Your task to perform on an android device: delete a single message in the gmail app Image 0: 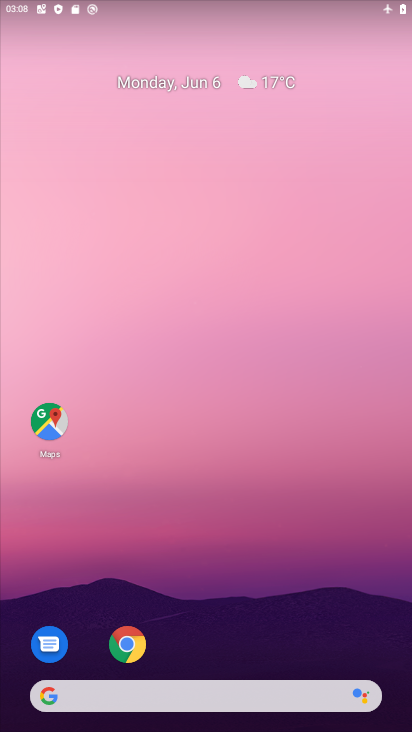
Step 0: drag from (380, 666) to (310, 165)
Your task to perform on an android device: delete a single message in the gmail app Image 1: 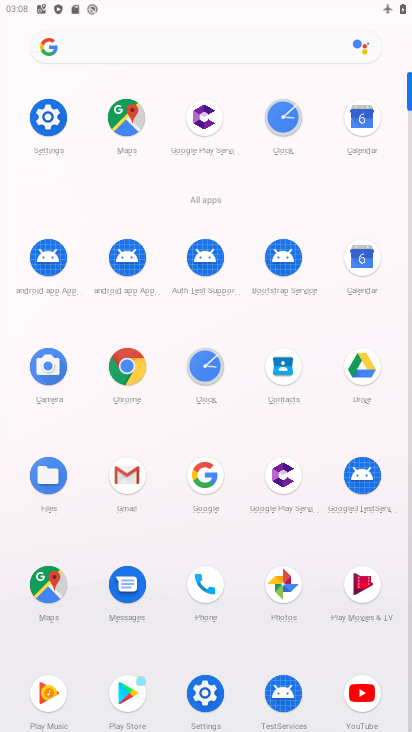
Step 1: click (131, 478)
Your task to perform on an android device: delete a single message in the gmail app Image 2: 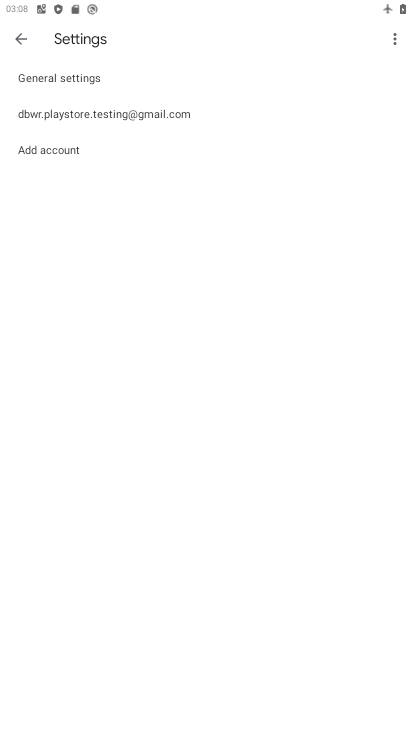
Step 2: click (20, 41)
Your task to perform on an android device: delete a single message in the gmail app Image 3: 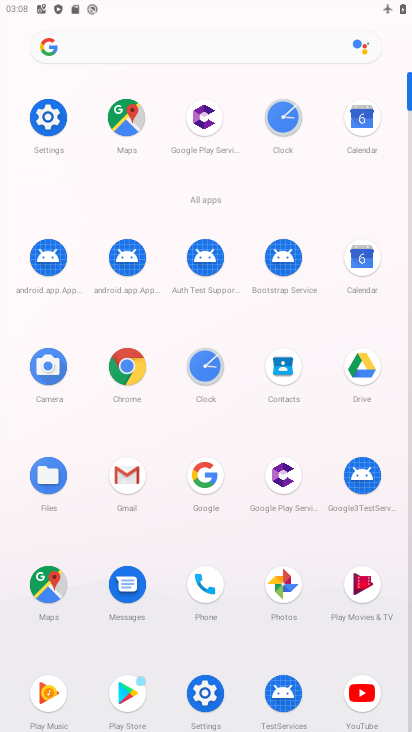
Step 3: click (115, 483)
Your task to perform on an android device: delete a single message in the gmail app Image 4: 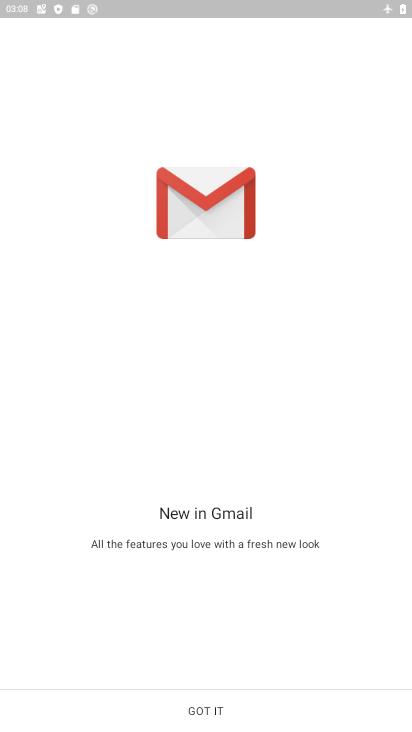
Step 4: click (197, 701)
Your task to perform on an android device: delete a single message in the gmail app Image 5: 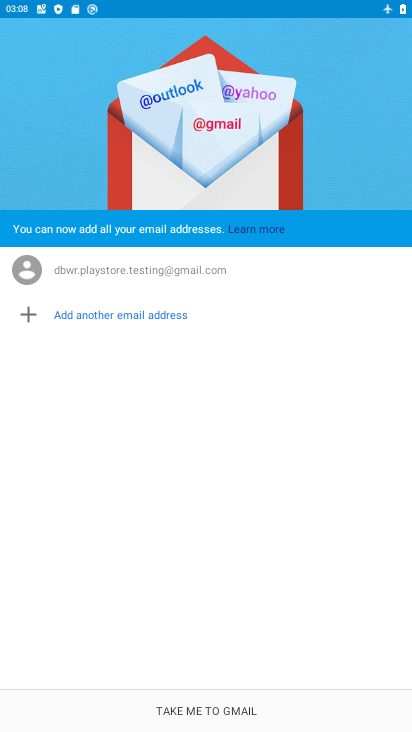
Step 5: click (197, 701)
Your task to perform on an android device: delete a single message in the gmail app Image 6: 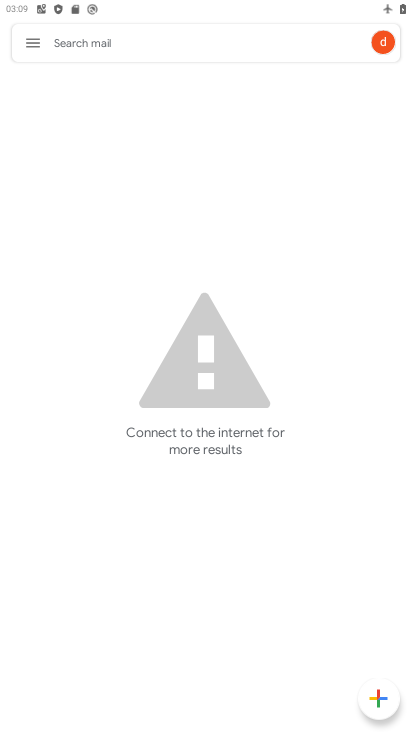
Step 6: task complete